Your task to perform on an android device: manage bookmarks in the chrome app Image 0: 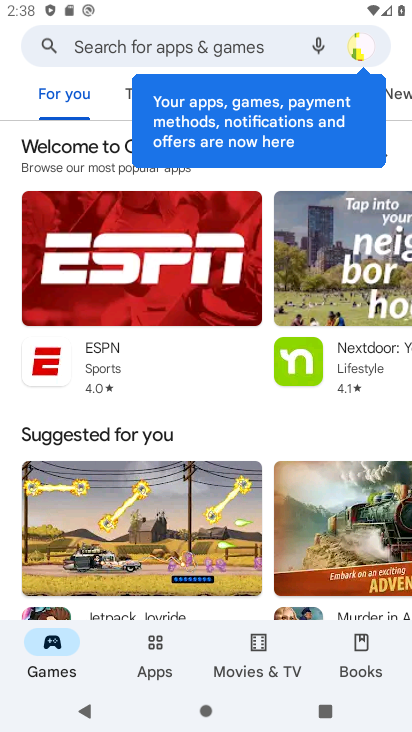
Step 0: press home button
Your task to perform on an android device: manage bookmarks in the chrome app Image 1: 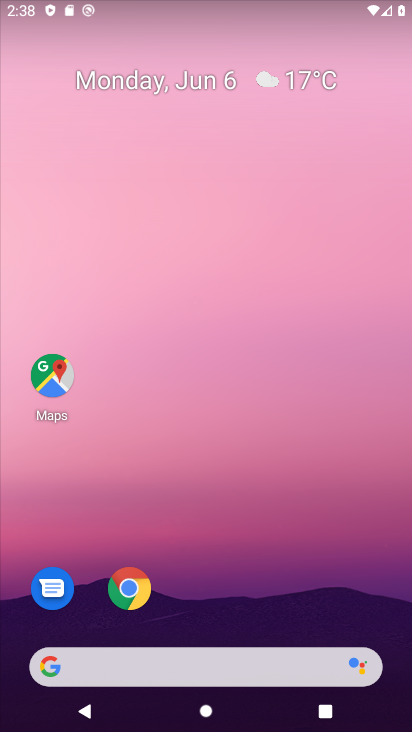
Step 1: click (114, 585)
Your task to perform on an android device: manage bookmarks in the chrome app Image 2: 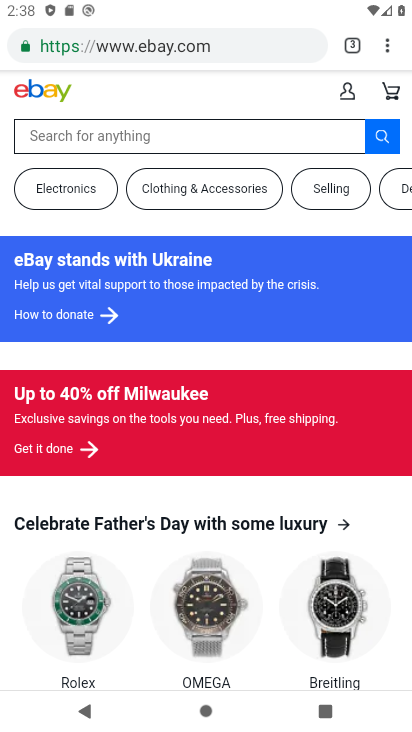
Step 2: drag from (388, 48) to (263, 170)
Your task to perform on an android device: manage bookmarks in the chrome app Image 3: 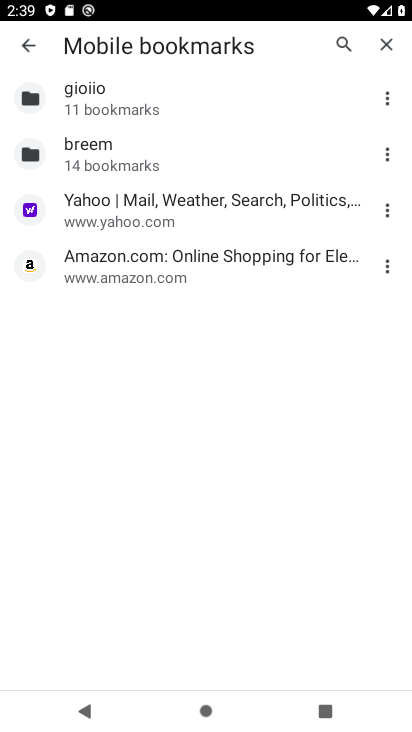
Step 3: click (382, 208)
Your task to perform on an android device: manage bookmarks in the chrome app Image 4: 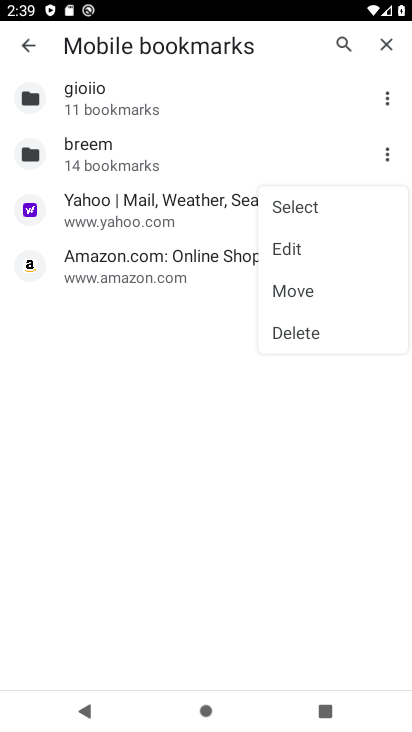
Step 4: click (310, 338)
Your task to perform on an android device: manage bookmarks in the chrome app Image 5: 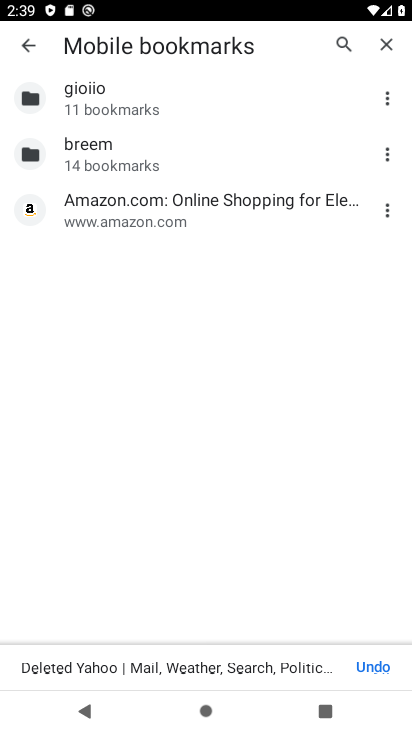
Step 5: task complete